Your task to perform on an android device: Show me popular games on the Play Store Image 0: 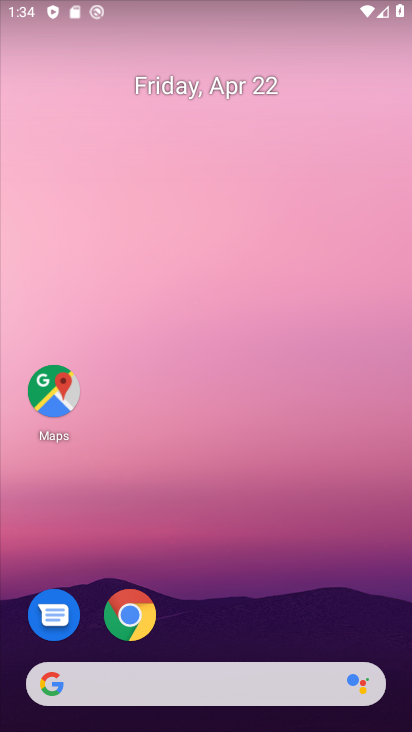
Step 0: drag from (181, 649) to (290, 108)
Your task to perform on an android device: Show me popular games on the Play Store Image 1: 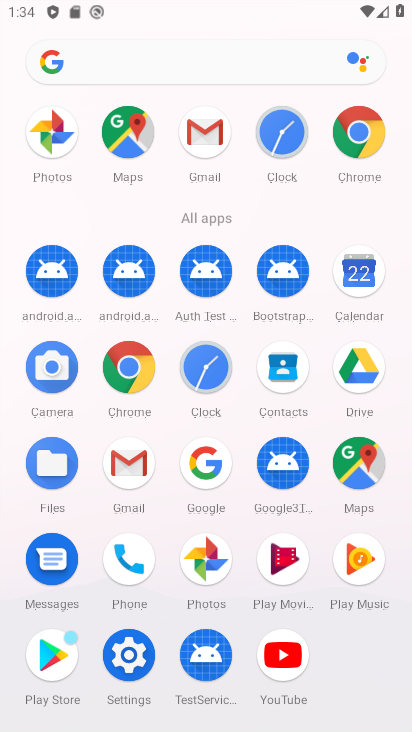
Step 1: click (45, 654)
Your task to perform on an android device: Show me popular games on the Play Store Image 2: 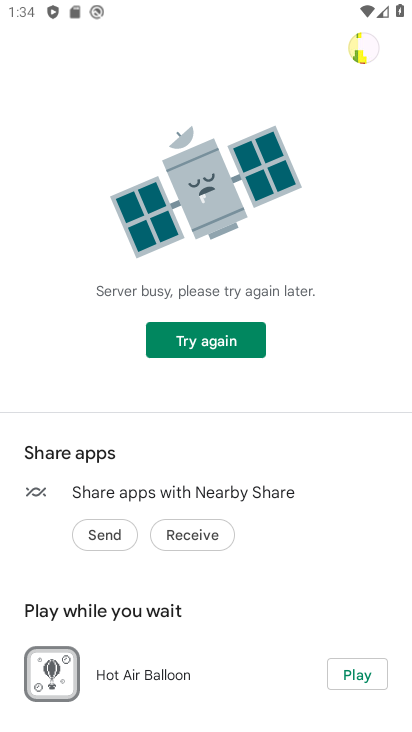
Step 2: task complete